Your task to perform on an android device: Go to sound settings Image 0: 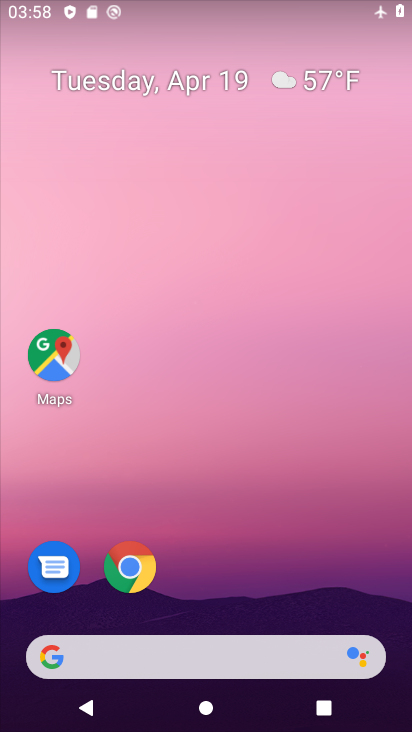
Step 0: drag from (378, 581) to (361, 181)
Your task to perform on an android device: Go to sound settings Image 1: 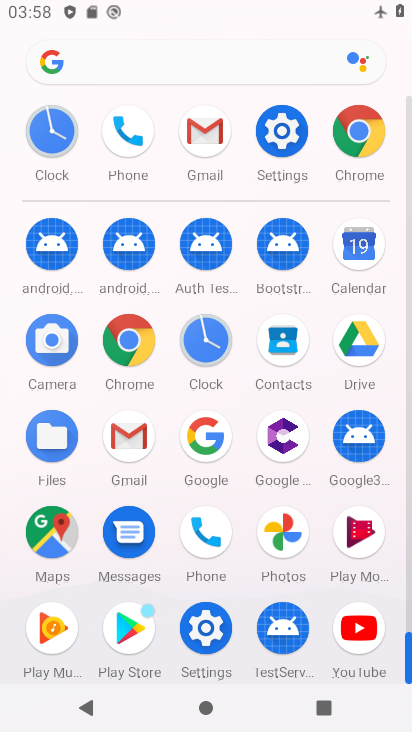
Step 1: click (289, 149)
Your task to perform on an android device: Go to sound settings Image 2: 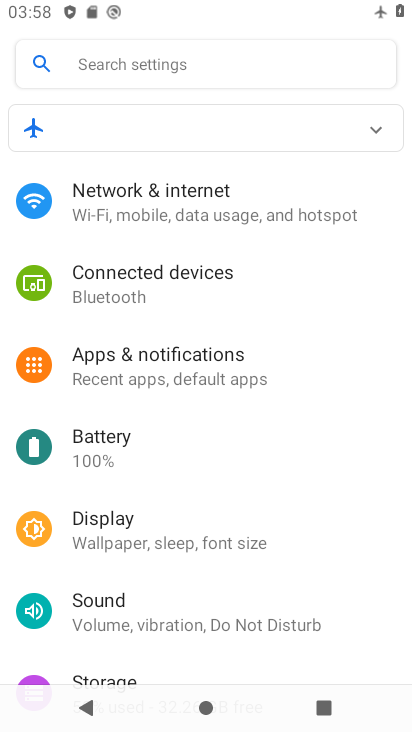
Step 2: drag from (373, 577) to (378, 428)
Your task to perform on an android device: Go to sound settings Image 3: 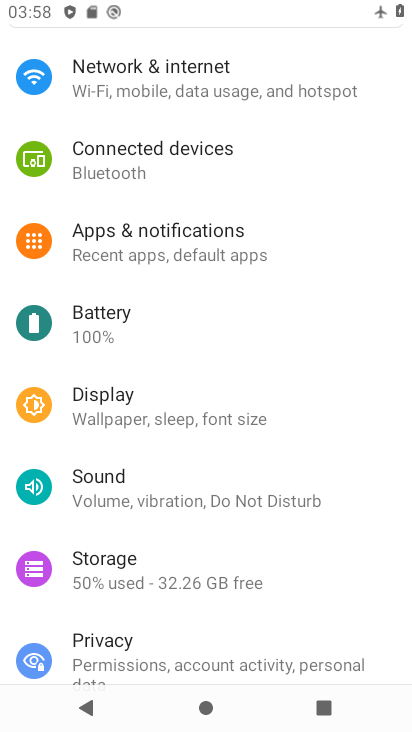
Step 3: drag from (365, 581) to (381, 470)
Your task to perform on an android device: Go to sound settings Image 4: 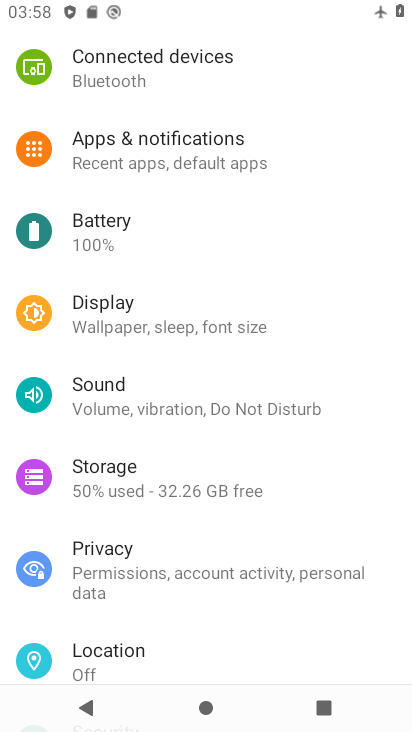
Step 4: drag from (391, 623) to (381, 469)
Your task to perform on an android device: Go to sound settings Image 5: 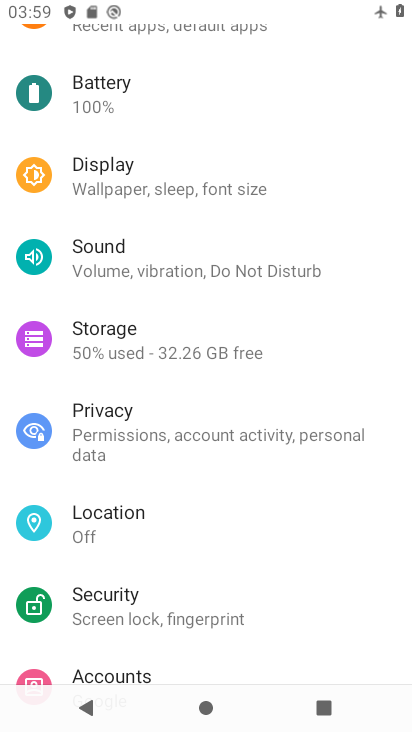
Step 5: drag from (383, 612) to (379, 438)
Your task to perform on an android device: Go to sound settings Image 6: 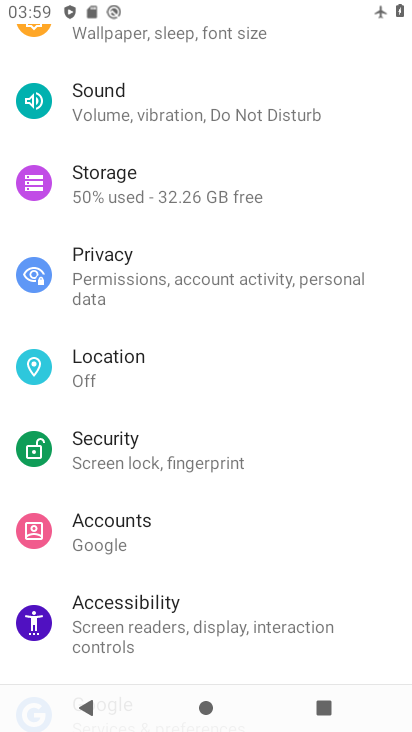
Step 6: drag from (368, 657) to (364, 504)
Your task to perform on an android device: Go to sound settings Image 7: 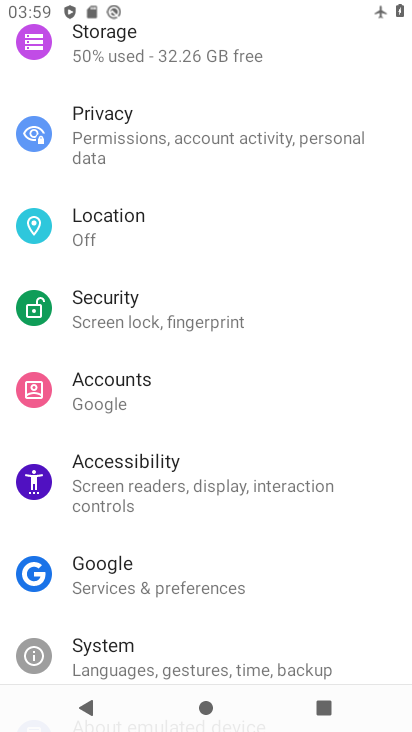
Step 7: drag from (361, 622) to (363, 449)
Your task to perform on an android device: Go to sound settings Image 8: 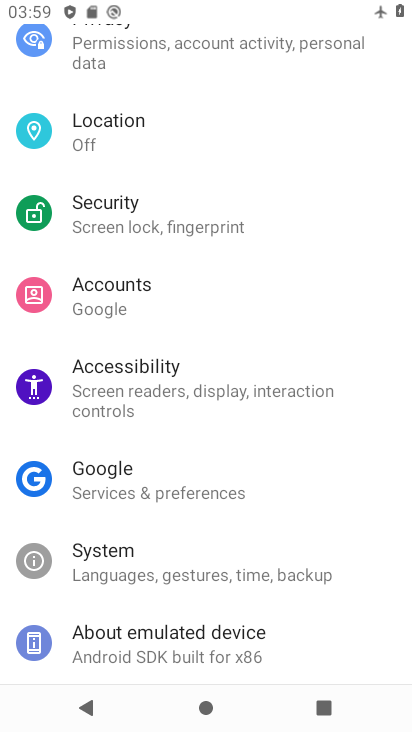
Step 8: drag from (364, 619) to (359, 452)
Your task to perform on an android device: Go to sound settings Image 9: 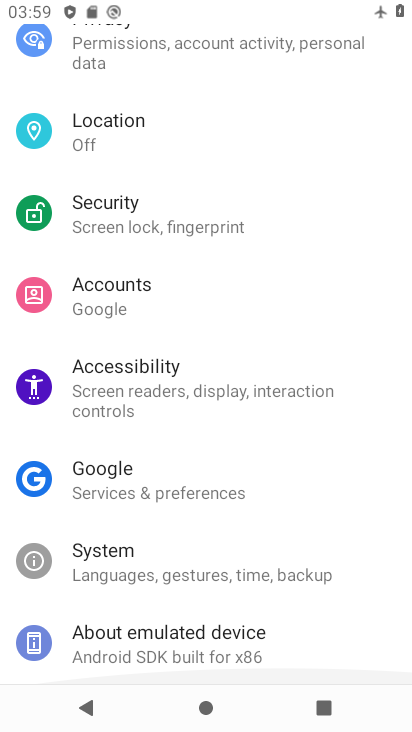
Step 9: drag from (367, 384) to (371, 514)
Your task to perform on an android device: Go to sound settings Image 10: 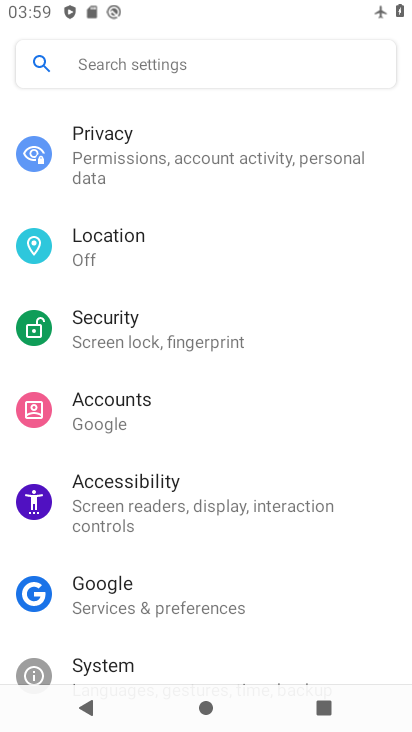
Step 10: drag from (374, 354) to (368, 514)
Your task to perform on an android device: Go to sound settings Image 11: 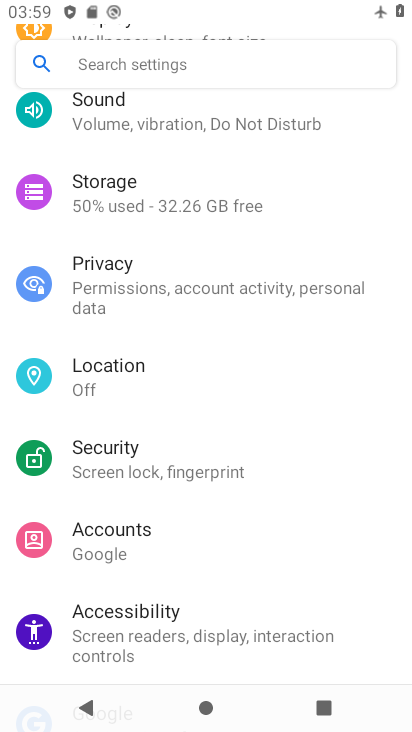
Step 11: drag from (364, 356) to (356, 507)
Your task to perform on an android device: Go to sound settings Image 12: 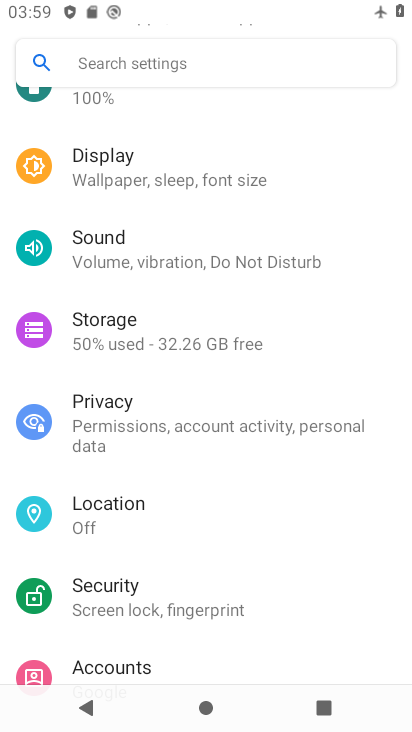
Step 12: drag from (385, 370) to (381, 520)
Your task to perform on an android device: Go to sound settings Image 13: 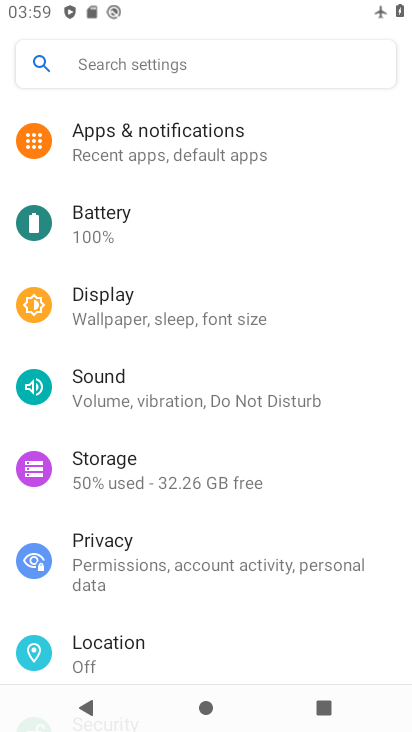
Step 13: drag from (366, 370) to (368, 526)
Your task to perform on an android device: Go to sound settings Image 14: 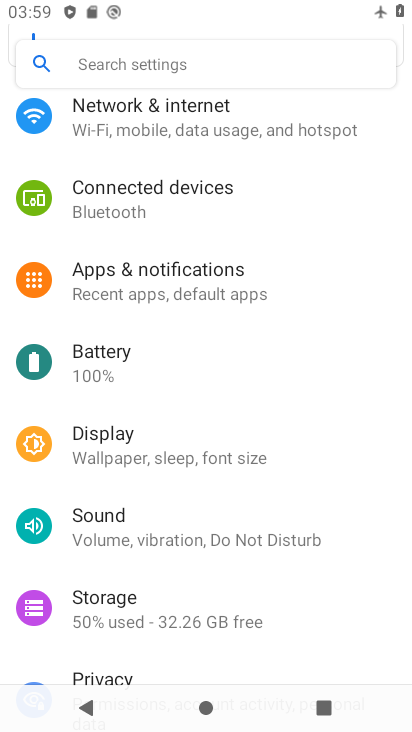
Step 14: click (287, 531)
Your task to perform on an android device: Go to sound settings Image 15: 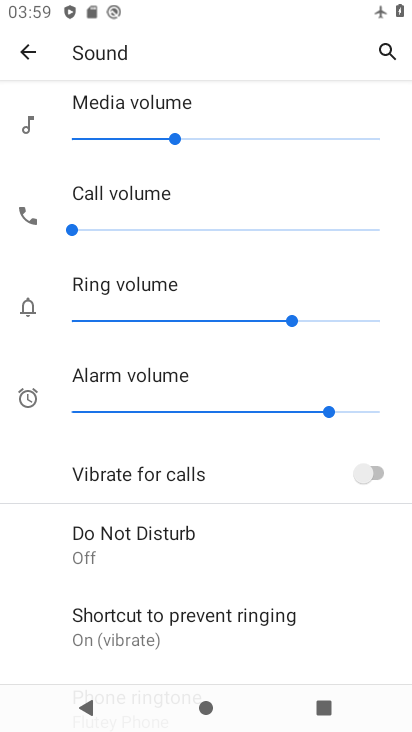
Step 15: task complete